Your task to perform on an android device: turn on the 12-hour format for clock Image 0: 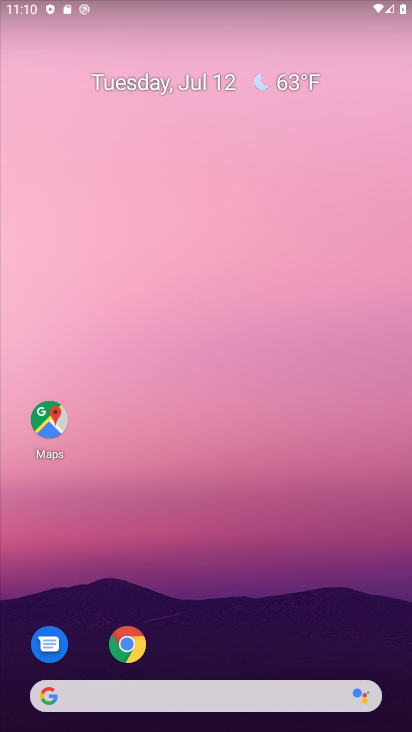
Step 0: drag from (185, 692) to (303, 140)
Your task to perform on an android device: turn on the 12-hour format for clock Image 1: 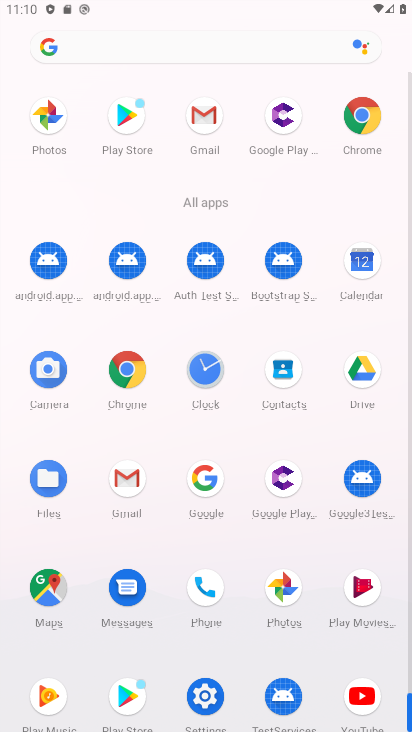
Step 1: click (205, 369)
Your task to perform on an android device: turn on the 12-hour format for clock Image 2: 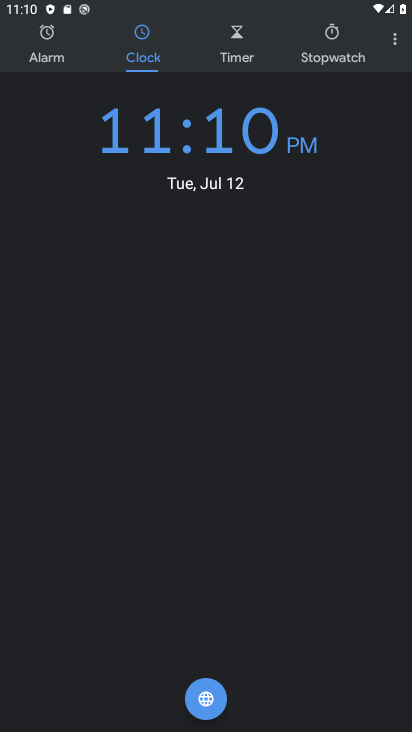
Step 2: click (394, 39)
Your task to perform on an android device: turn on the 12-hour format for clock Image 3: 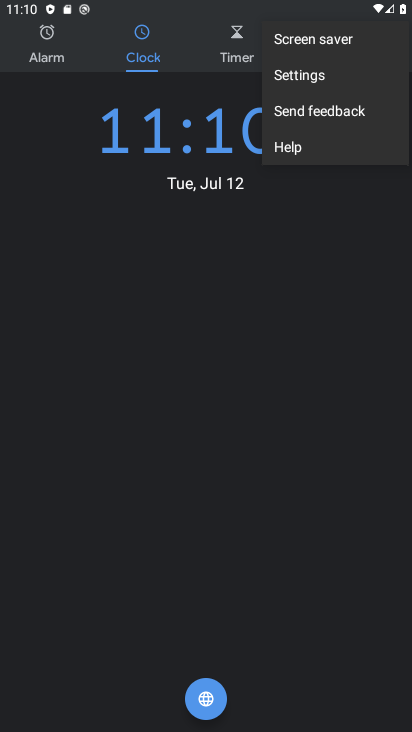
Step 3: click (316, 79)
Your task to perform on an android device: turn on the 12-hour format for clock Image 4: 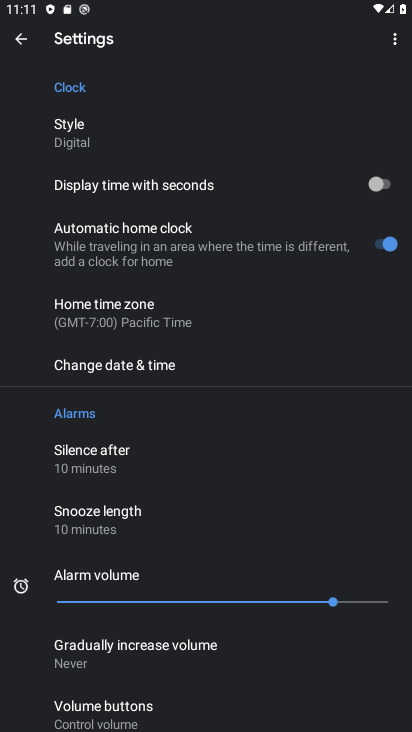
Step 4: click (142, 366)
Your task to perform on an android device: turn on the 12-hour format for clock Image 5: 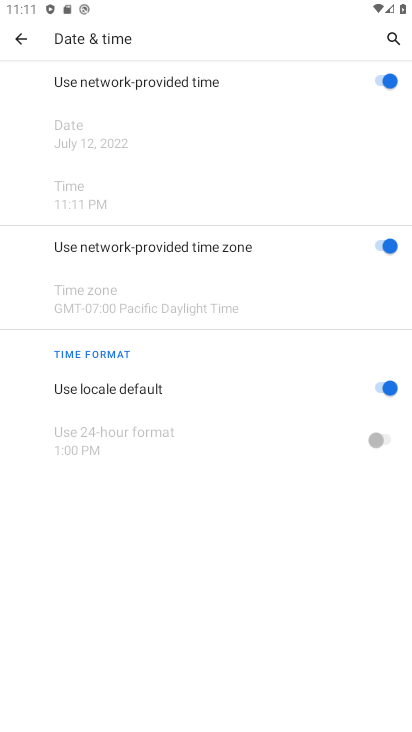
Step 5: task complete